Your task to perform on an android device: Go to location settings Image 0: 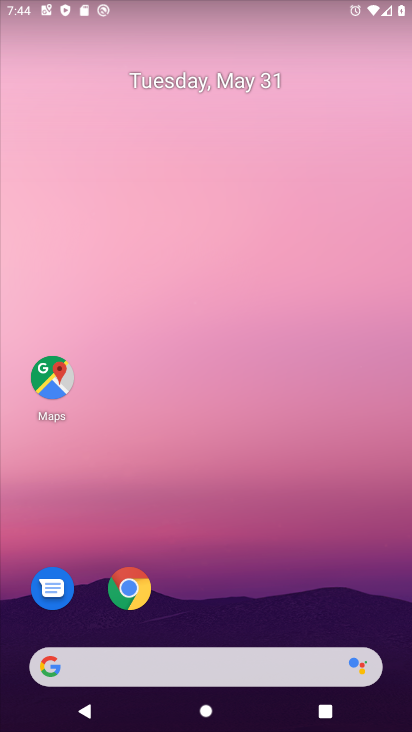
Step 0: drag from (208, 616) to (231, 267)
Your task to perform on an android device: Go to location settings Image 1: 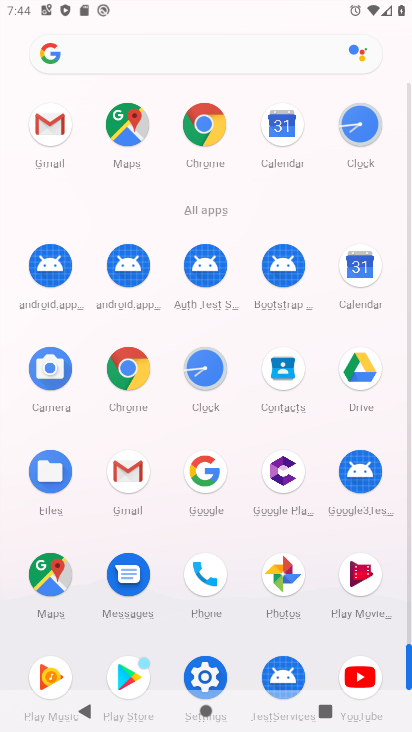
Step 1: click (202, 670)
Your task to perform on an android device: Go to location settings Image 2: 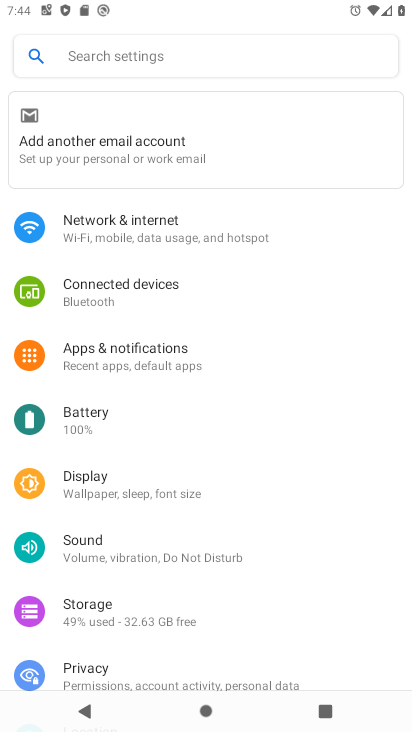
Step 2: drag from (174, 635) to (198, 494)
Your task to perform on an android device: Go to location settings Image 3: 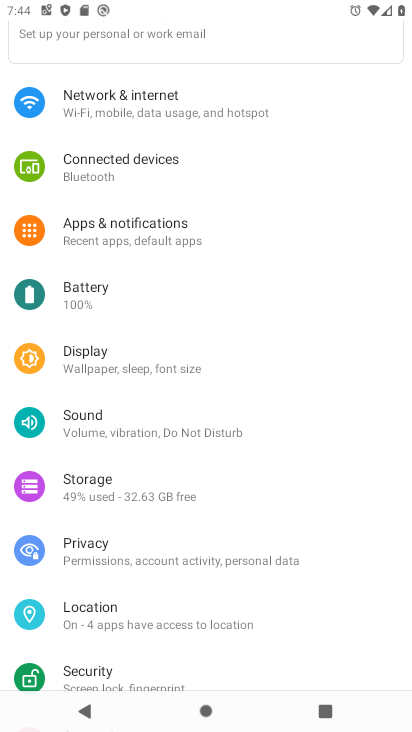
Step 3: click (140, 622)
Your task to perform on an android device: Go to location settings Image 4: 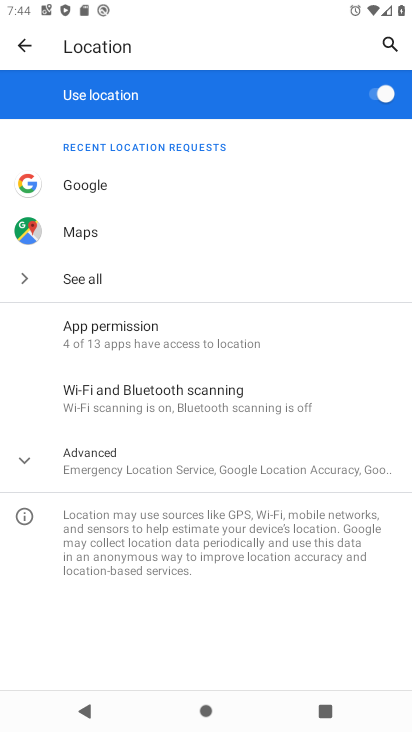
Step 4: task complete